Your task to perform on an android device: Show the shopping cart on ebay. Search for "asus zenbook" on ebay, select the first entry, and add it to the cart. Image 0: 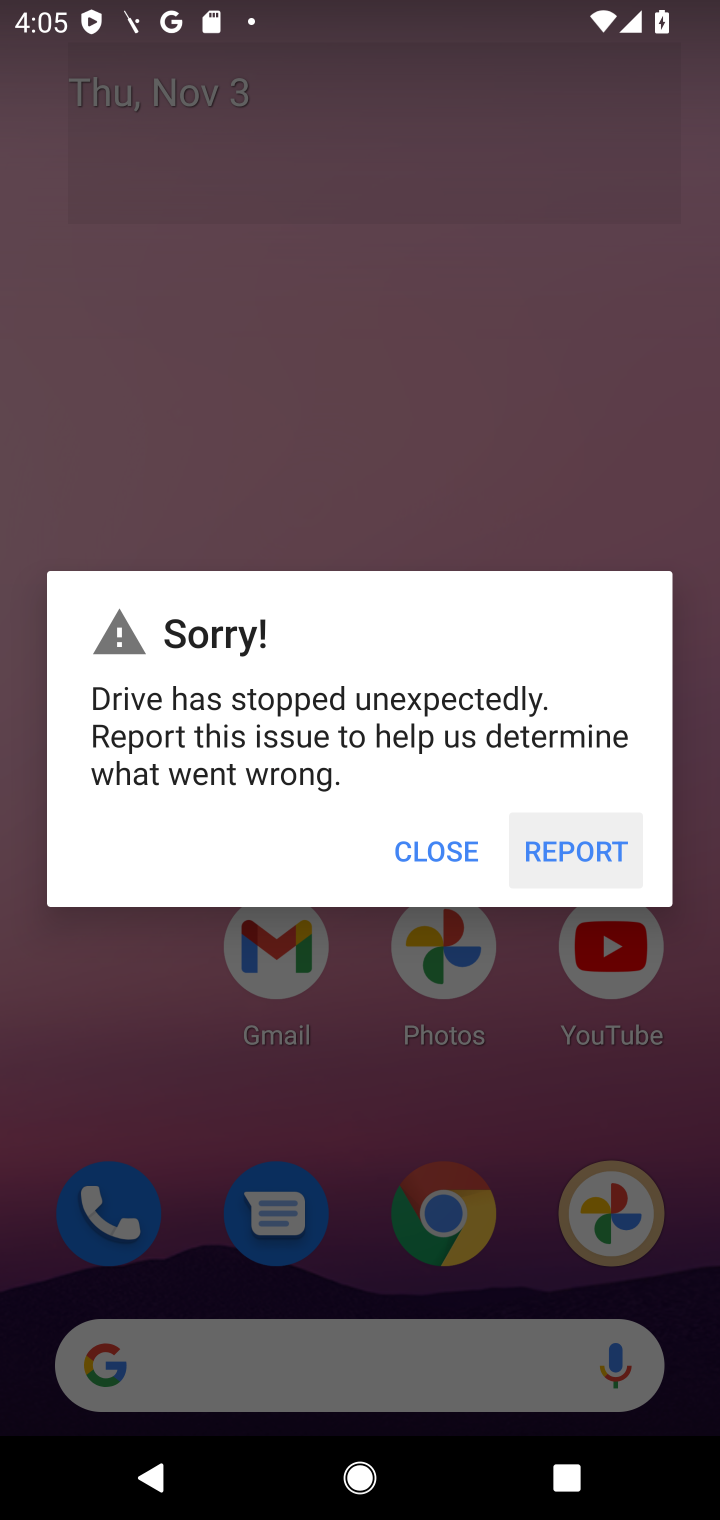
Step 0: press home button
Your task to perform on an android device: Show the shopping cart on ebay. Search for "asus zenbook" on ebay, select the first entry, and add it to the cart. Image 1: 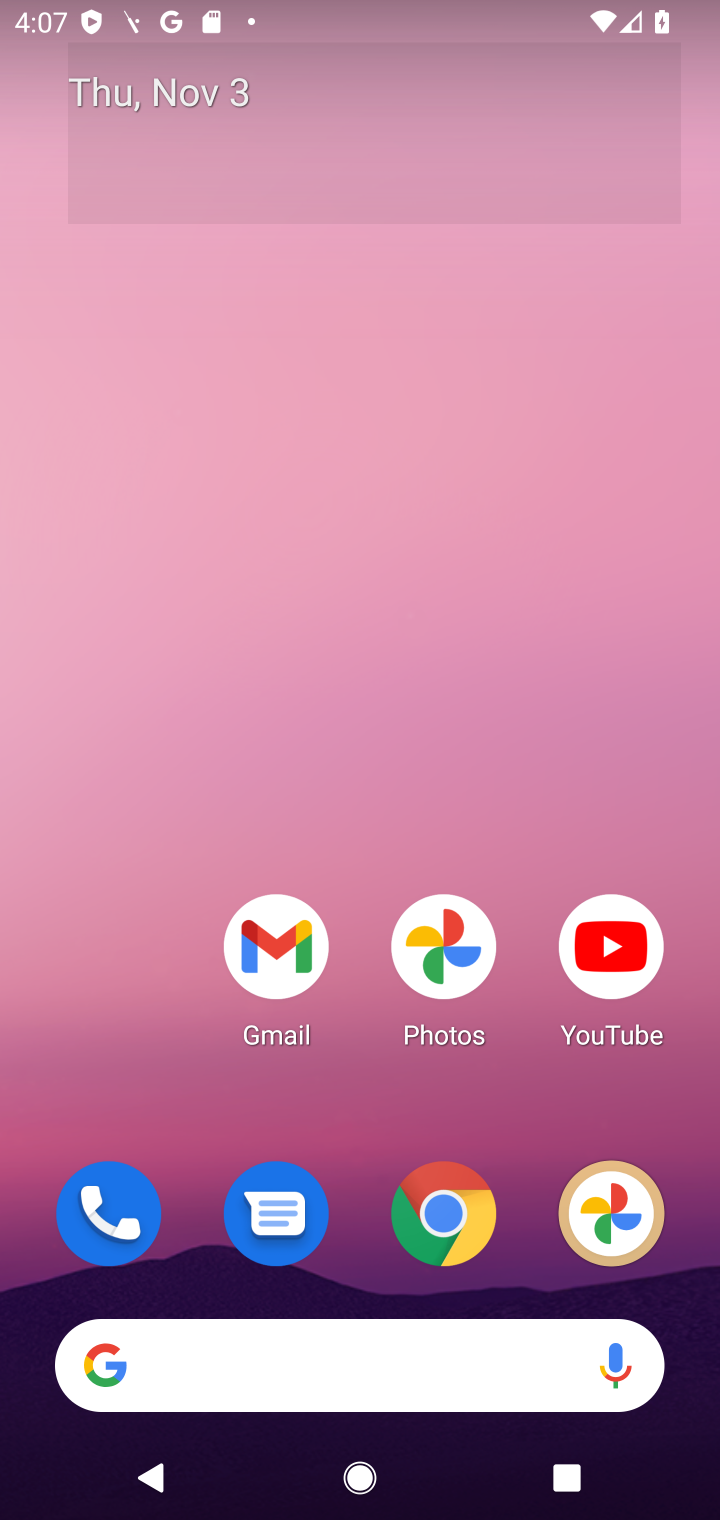
Step 1: click (457, 1224)
Your task to perform on an android device: Show the shopping cart on ebay. Search for "asus zenbook" on ebay, select the first entry, and add it to the cart. Image 2: 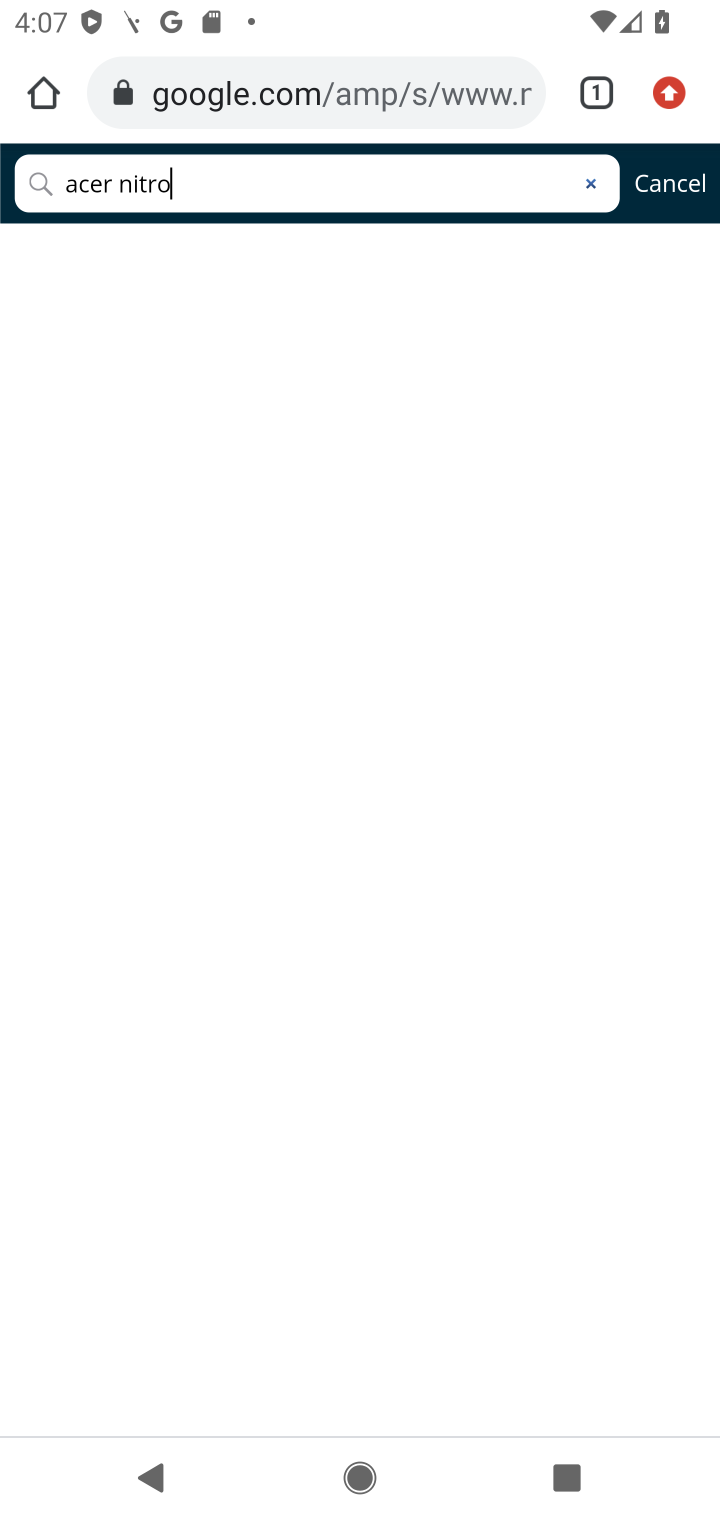
Step 2: click (297, 116)
Your task to perform on an android device: Show the shopping cart on ebay. Search for "asus zenbook" on ebay, select the first entry, and add it to the cart. Image 3: 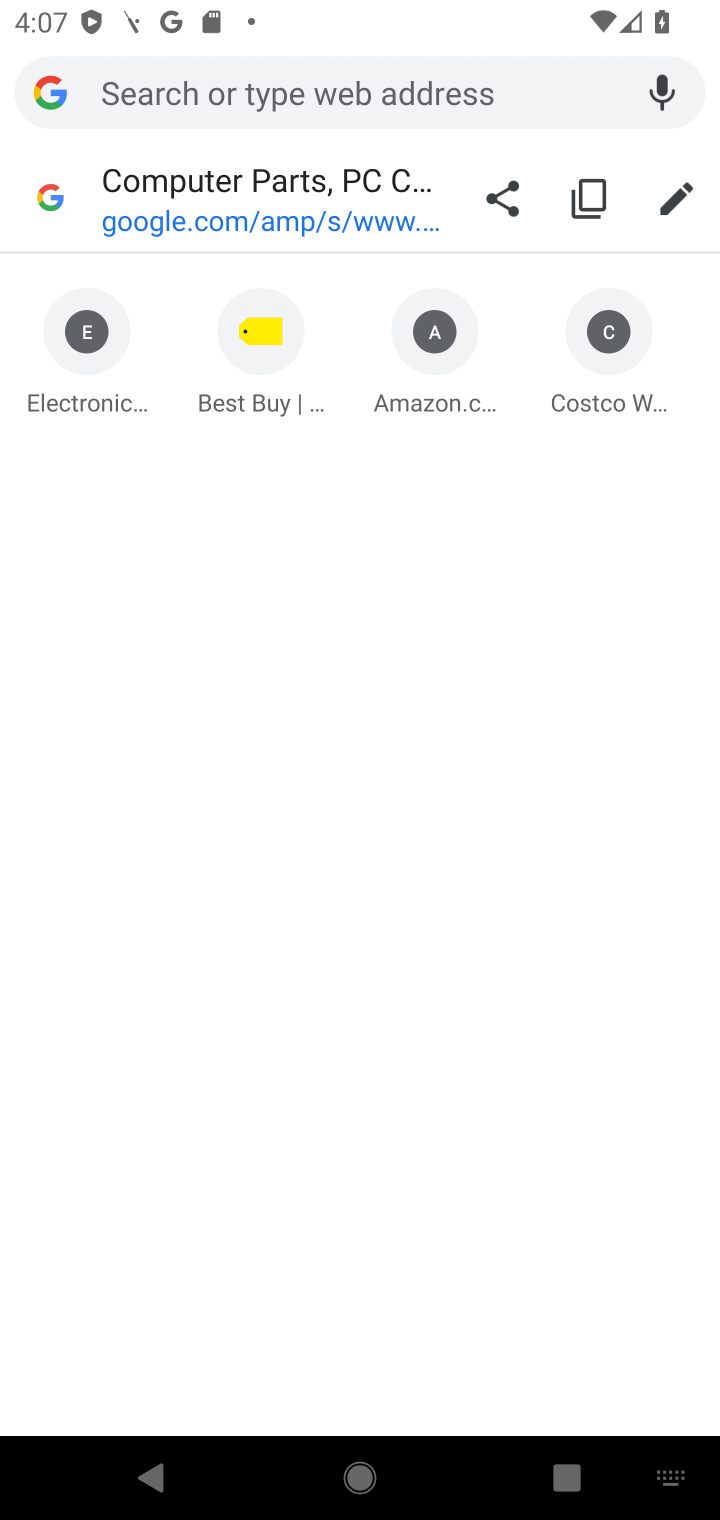
Step 3: type "ebay.com"
Your task to perform on an android device: Show the shopping cart on ebay. Search for "asus zenbook" on ebay, select the first entry, and add it to the cart. Image 4: 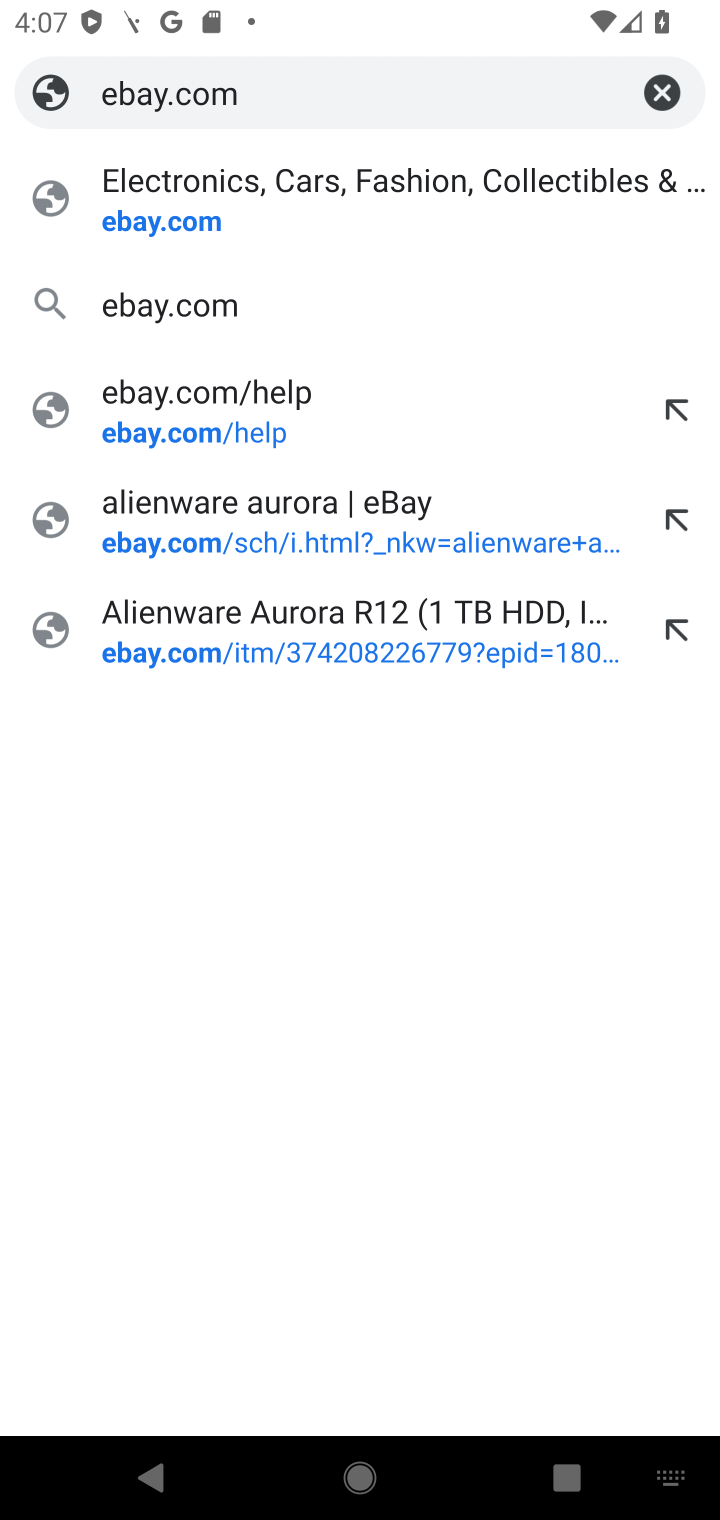
Step 4: click (120, 226)
Your task to perform on an android device: Show the shopping cart on ebay. Search for "asus zenbook" on ebay, select the first entry, and add it to the cart. Image 5: 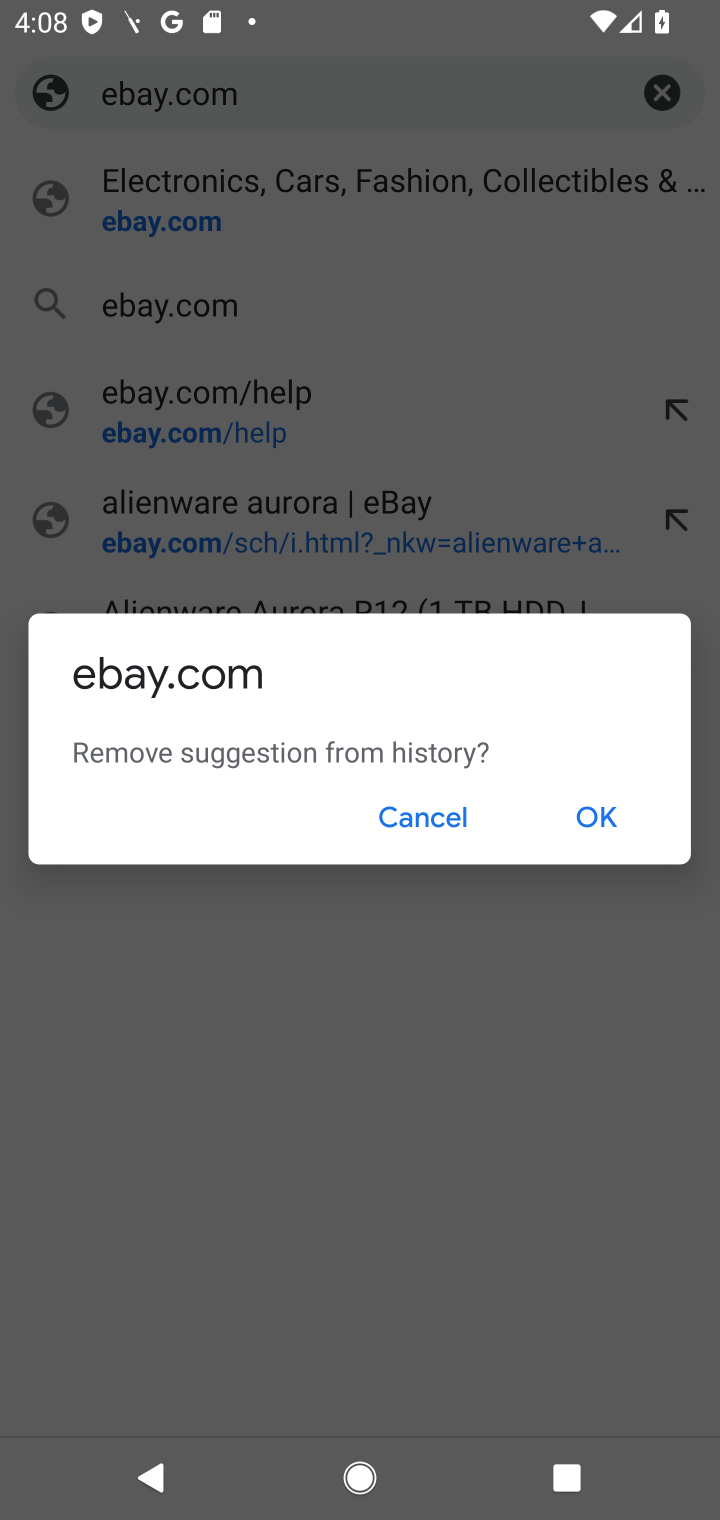
Step 5: click (453, 833)
Your task to perform on an android device: Show the shopping cart on ebay. Search for "asus zenbook" on ebay, select the first entry, and add it to the cart. Image 6: 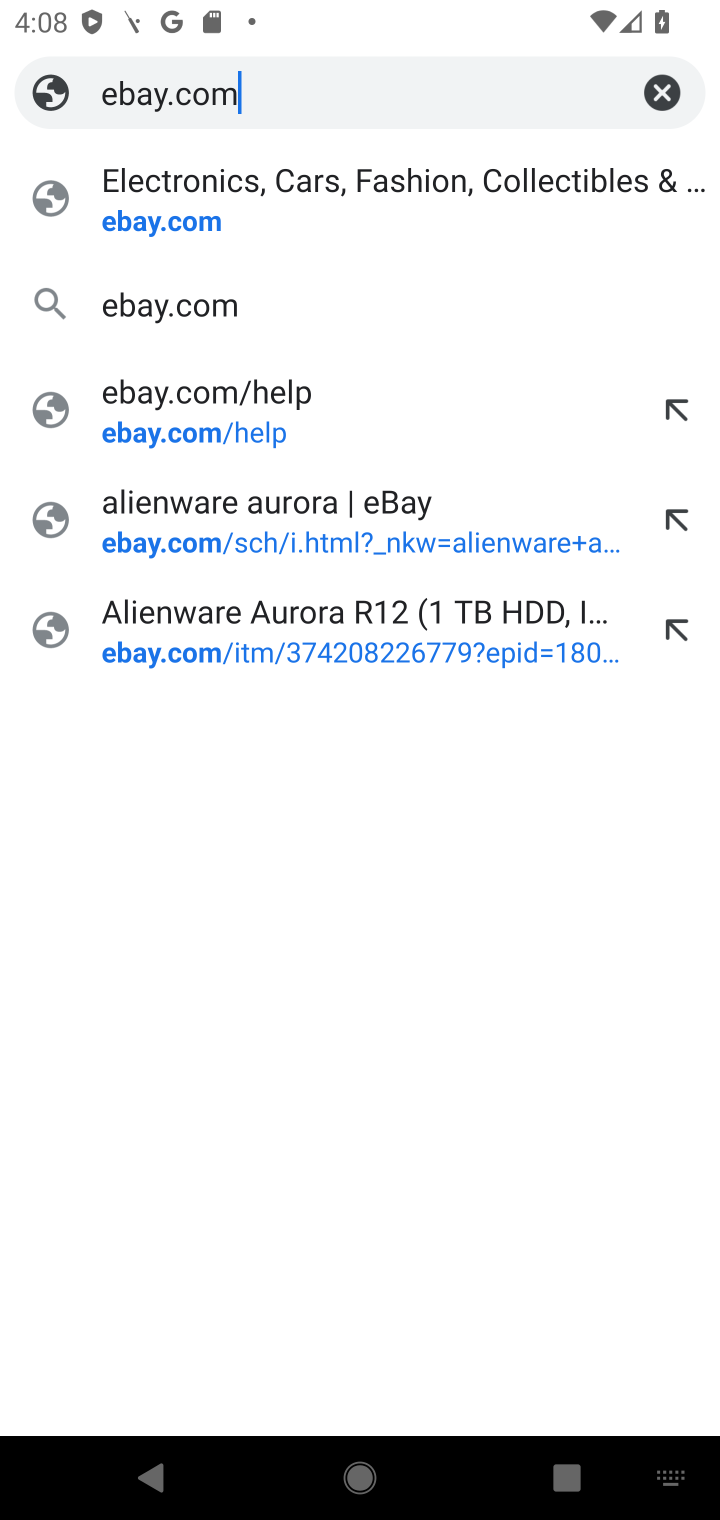
Step 6: click (195, 217)
Your task to perform on an android device: Show the shopping cart on ebay. Search for "asus zenbook" on ebay, select the first entry, and add it to the cart. Image 7: 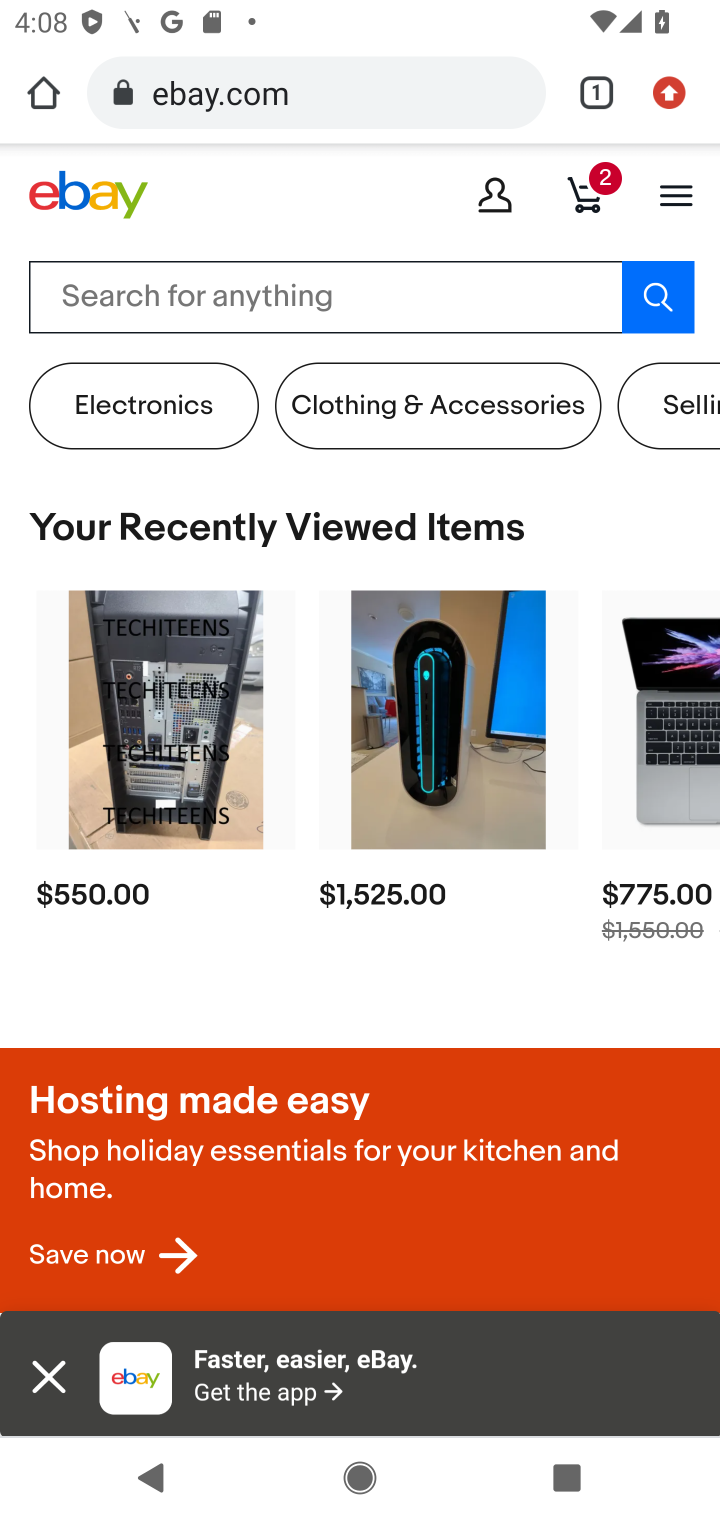
Step 7: click (591, 183)
Your task to perform on an android device: Show the shopping cart on ebay. Search for "asus zenbook" on ebay, select the first entry, and add it to the cart. Image 8: 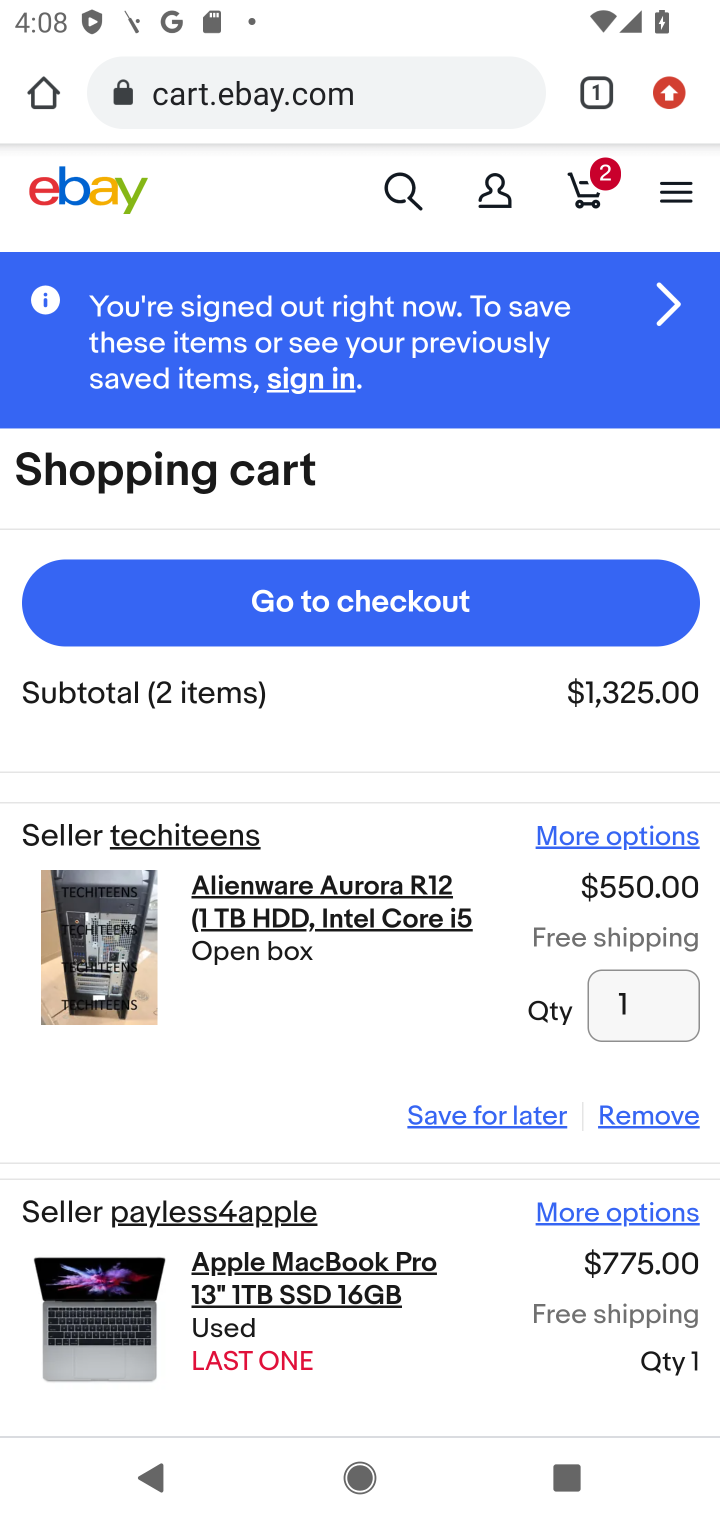
Step 8: click (406, 204)
Your task to perform on an android device: Show the shopping cart on ebay. Search for "asus zenbook" on ebay, select the first entry, and add it to the cart. Image 9: 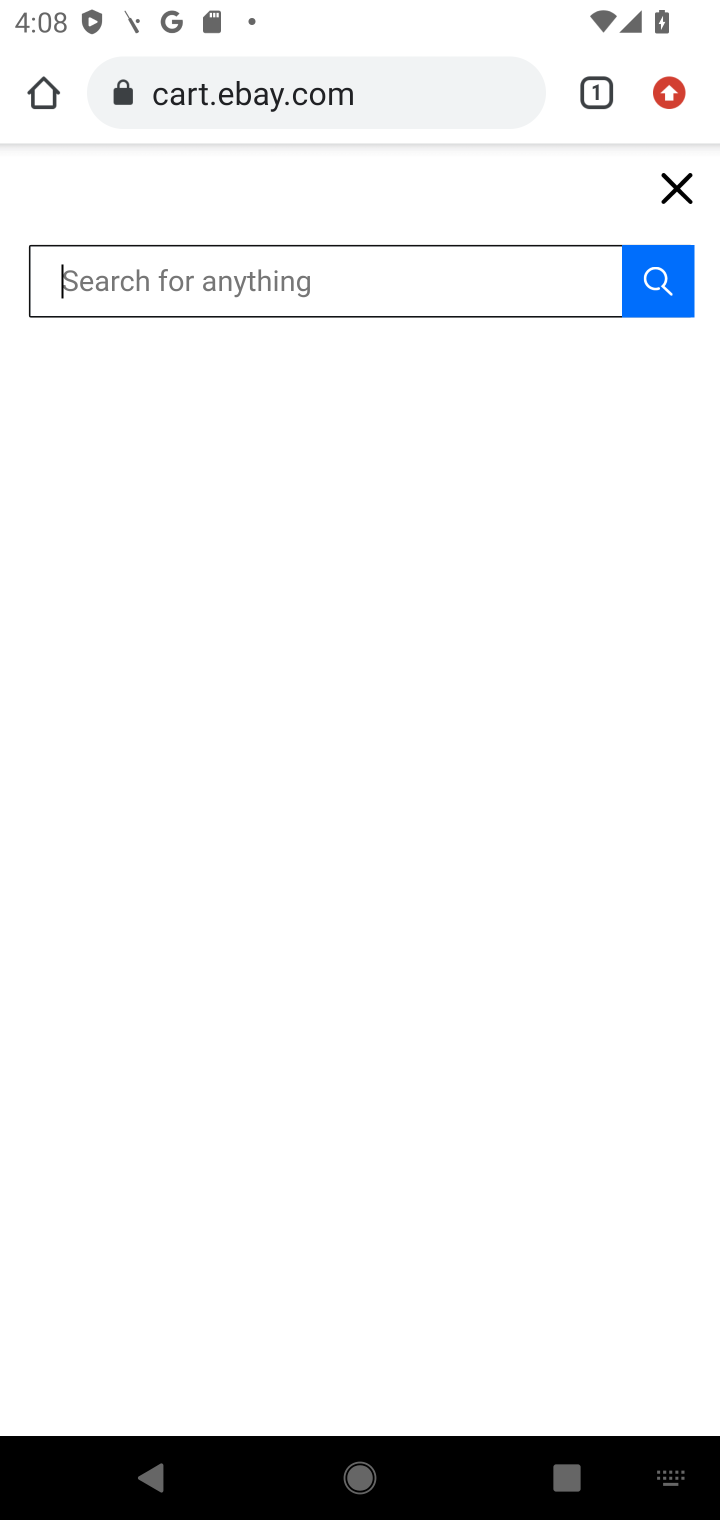
Step 9: type "asus zenbook"
Your task to perform on an android device: Show the shopping cart on ebay. Search for "asus zenbook" on ebay, select the first entry, and add it to the cart. Image 10: 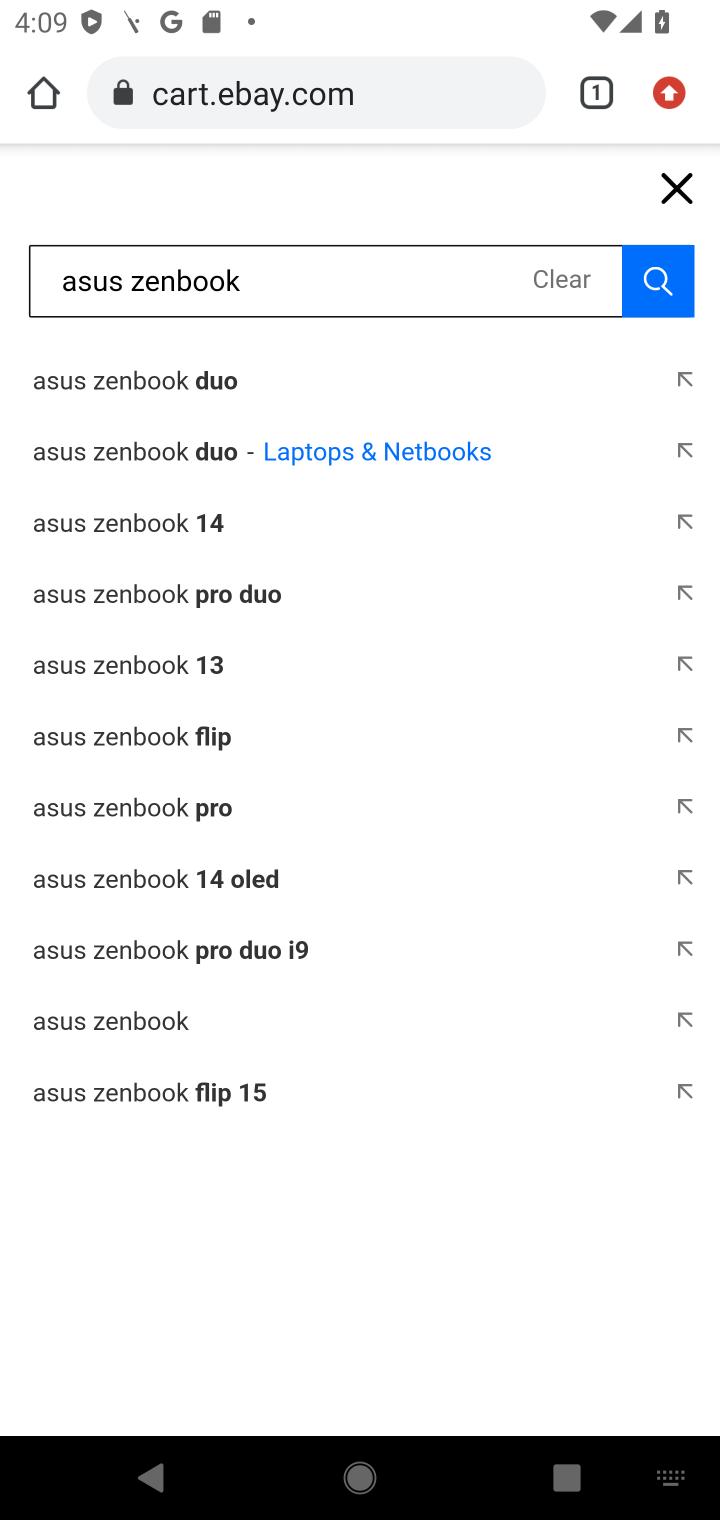
Step 10: click (660, 281)
Your task to perform on an android device: Show the shopping cart on ebay. Search for "asus zenbook" on ebay, select the first entry, and add it to the cart. Image 11: 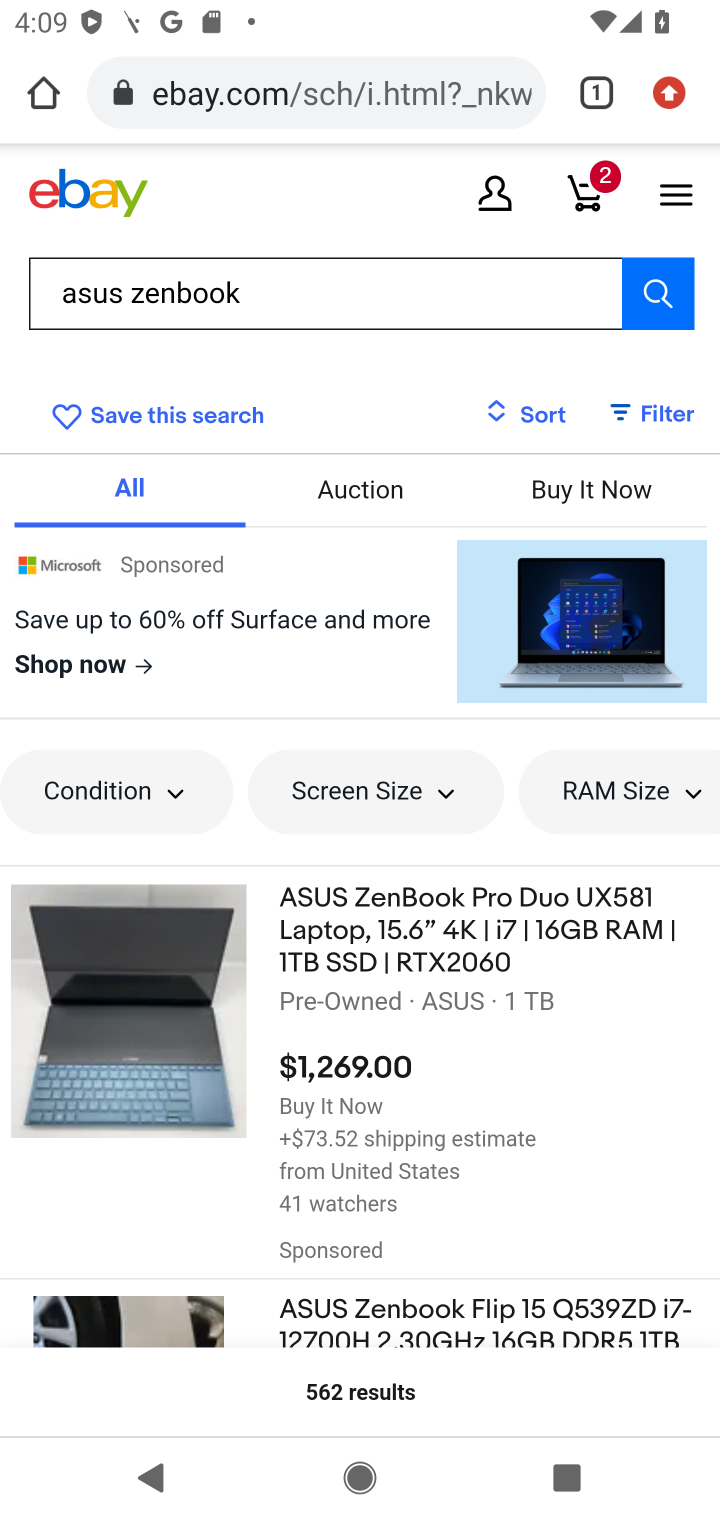
Step 11: click (347, 1037)
Your task to perform on an android device: Show the shopping cart on ebay. Search for "asus zenbook" on ebay, select the first entry, and add it to the cart. Image 12: 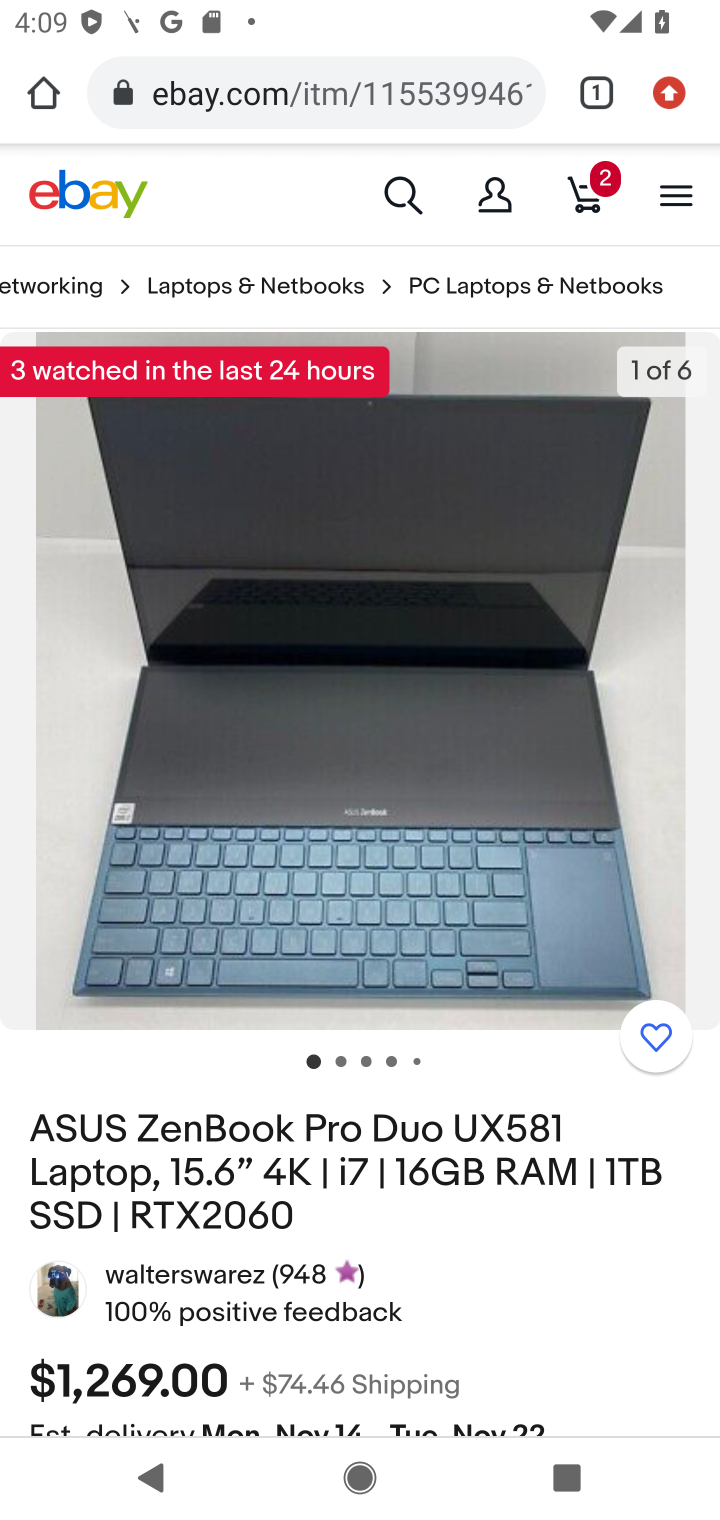
Step 12: drag from (374, 1209) to (313, 400)
Your task to perform on an android device: Show the shopping cart on ebay. Search for "asus zenbook" on ebay, select the first entry, and add it to the cart. Image 13: 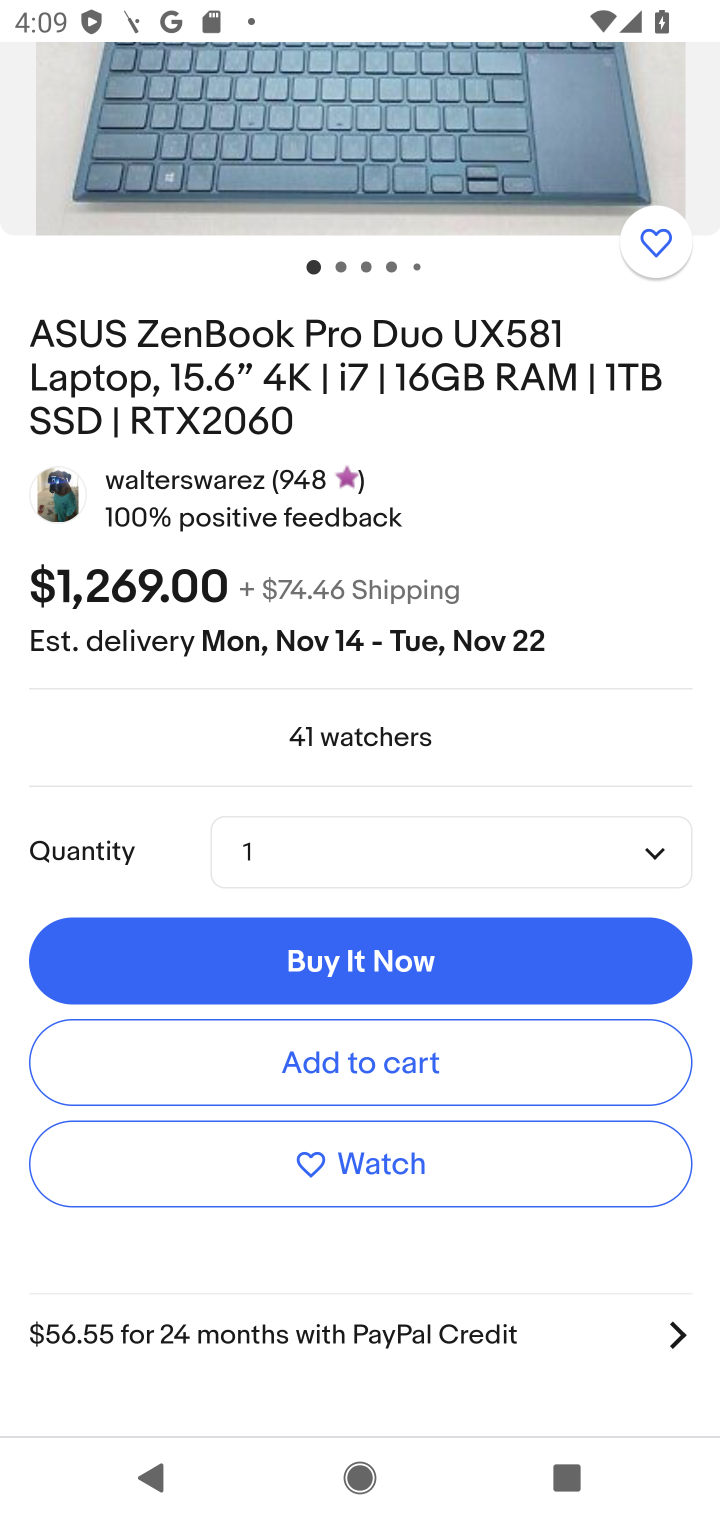
Step 13: click (347, 1060)
Your task to perform on an android device: Show the shopping cart on ebay. Search for "asus zenbook" on ebay, select the first entry, and add it to the cart. Image 14: 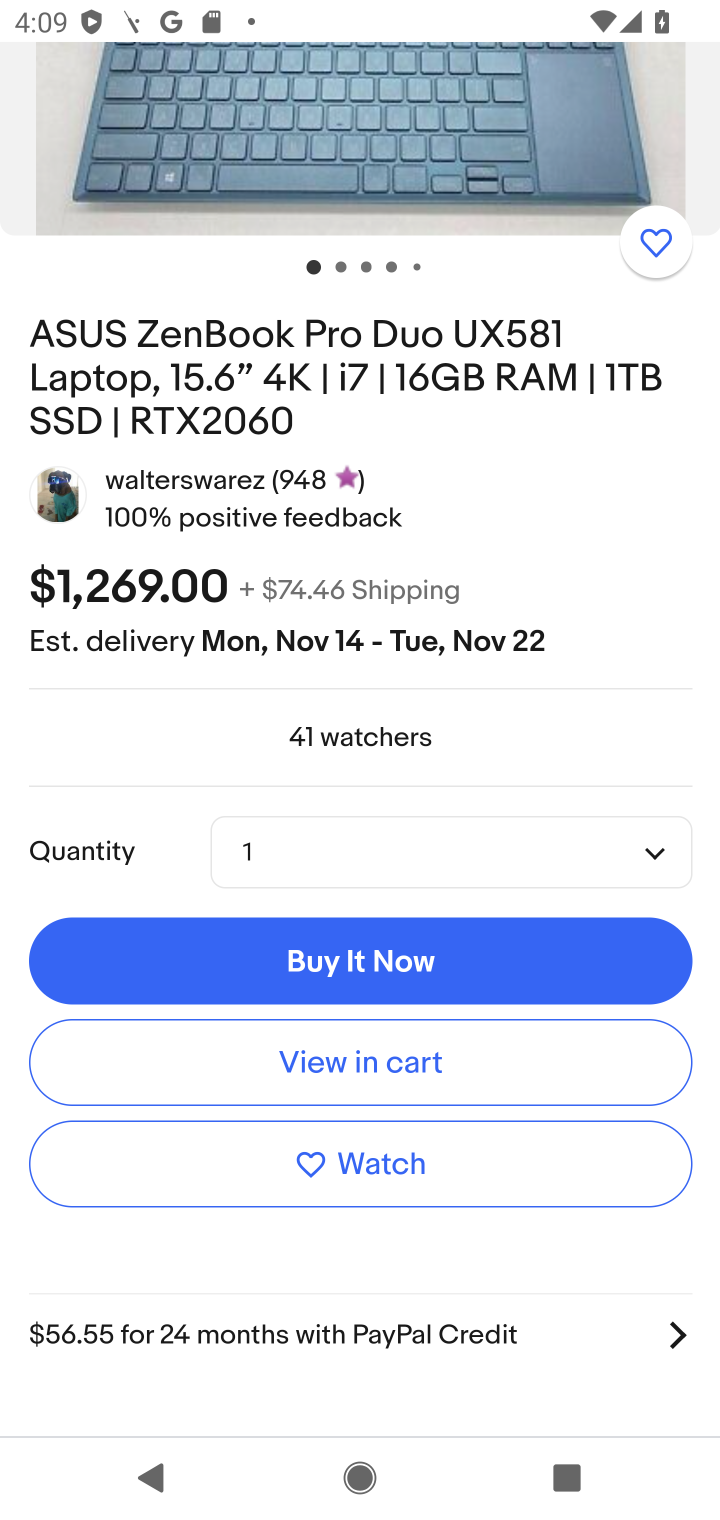
Step 14: task complete